Your task to perform on an android device: change timer sound Image 0: 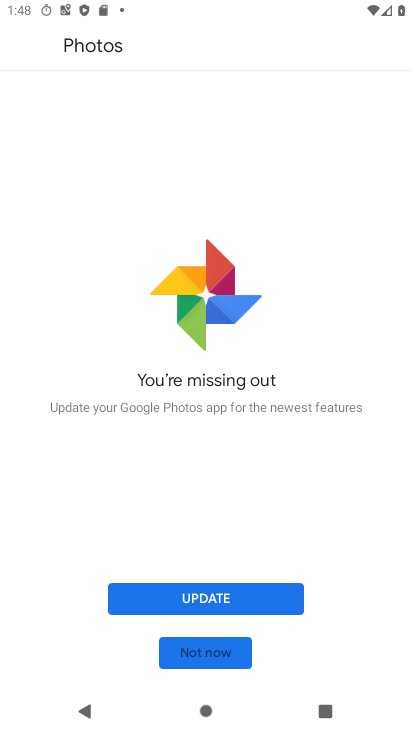
Step 0: press home button
Your task to perform on an android device: change timer sound Image 1: 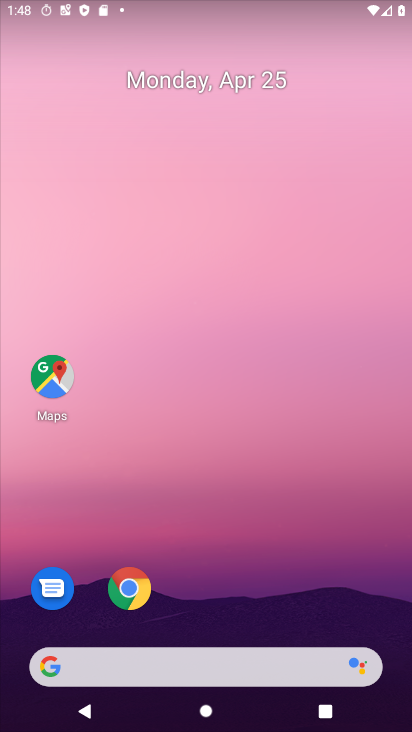
Step 1: drag from (248, 603) to (349, 182)
Your task to perform on an android device: change timer sound Image 2: 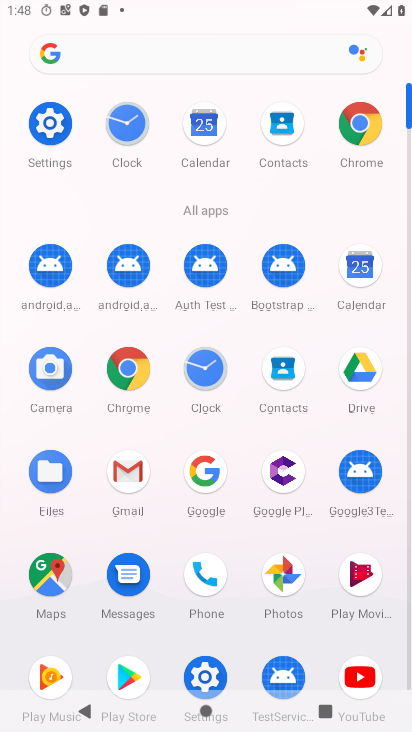
Step 2: click (207, 376)
Your task to perform on an android device: change timer sound Image 3: 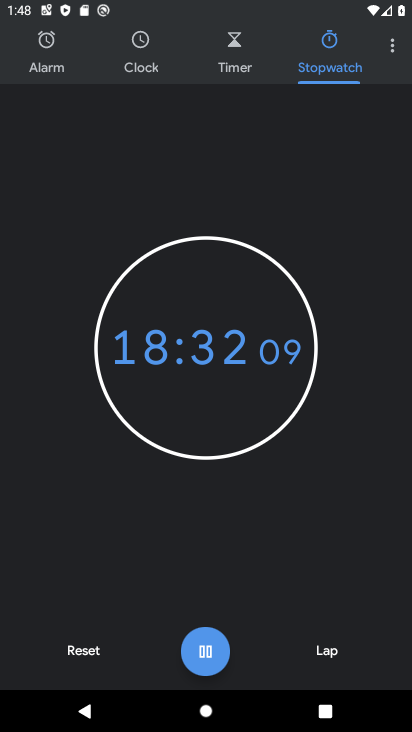
Step 3: click (394, 43)
Your task to perform on an android device: change timer sound Image 4: 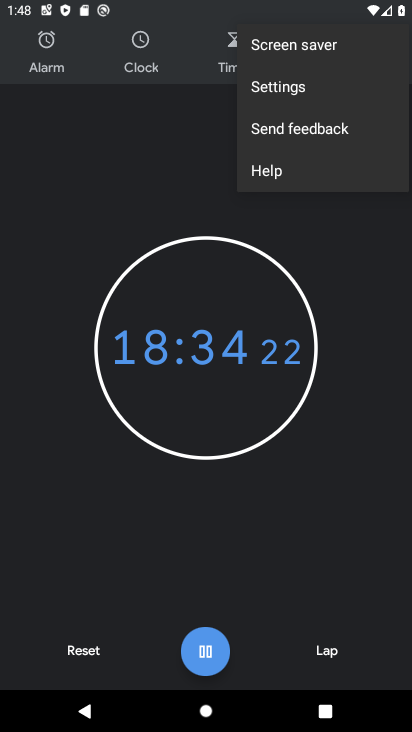
Step 4: click (304, 91)
Your task to perform on an android device: change timer sound Image 5: 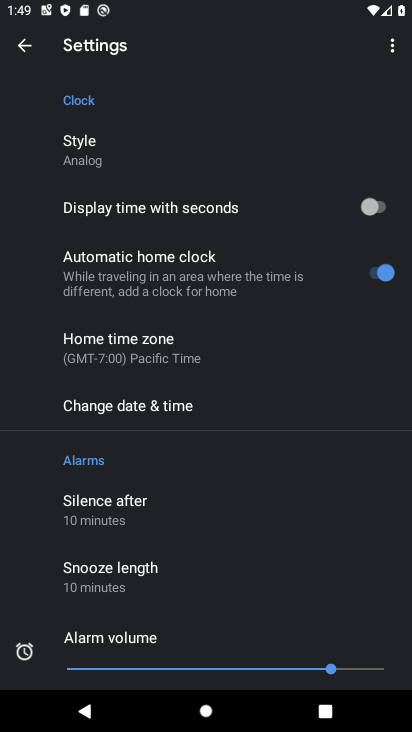
Step 5: drag from (185, 536) to (191, 241)
Your task to perform on an android device: change timer sound Image 6: 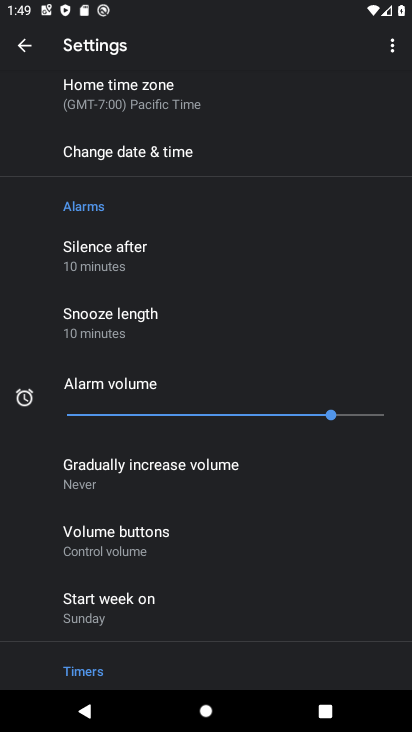
Step 6: drag from (198, 516) to (191, 151)
Your task to perform on an android device: change timer sound Image 7: 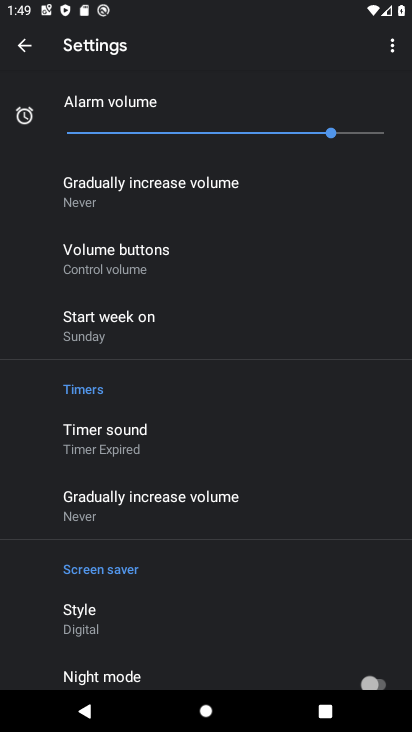
Step 7: click (157, 449)
Your task to perform on an android device: change timer sound Image 8: 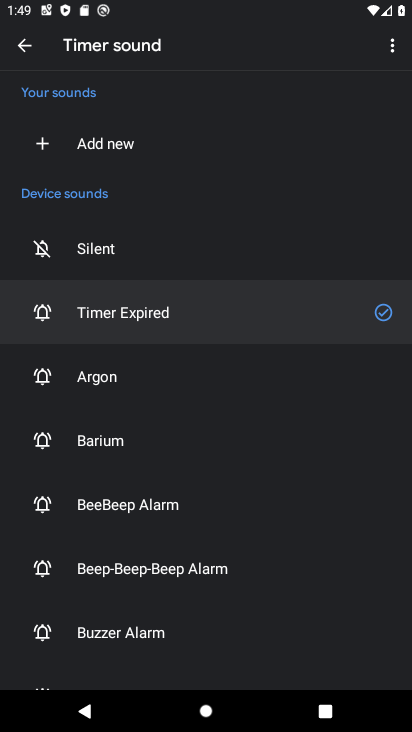
Step 8: click (120, 395)
Your task to perform on an android device: change timer sound Image 9: 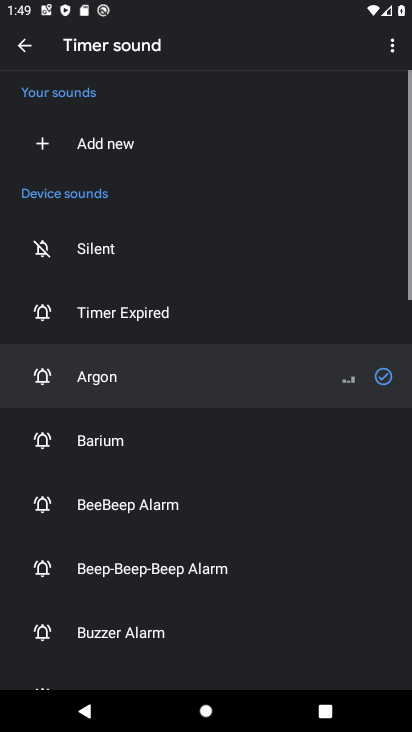
Step 9: task complete